Your task to perform on an android device: Check the news Image 0: 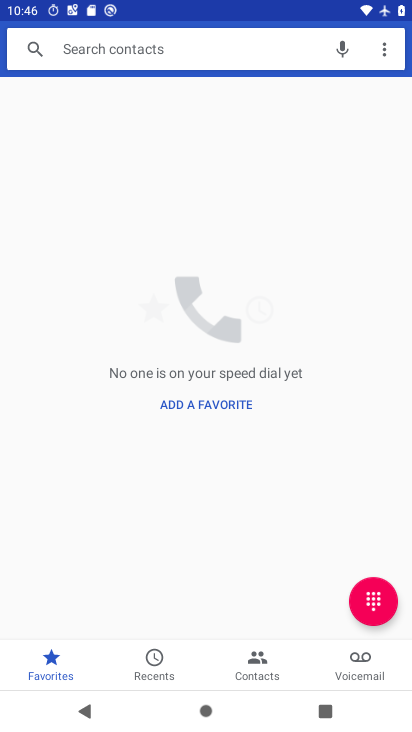
Step 0: press home button
Your task to perform on an android device: Check the news Image 1: 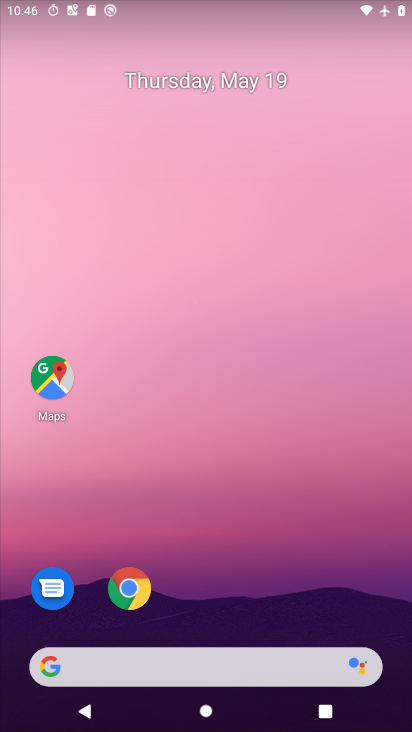
Step 1: click (56, 669)
Your task to perform on an android device: Check the news Image 2: 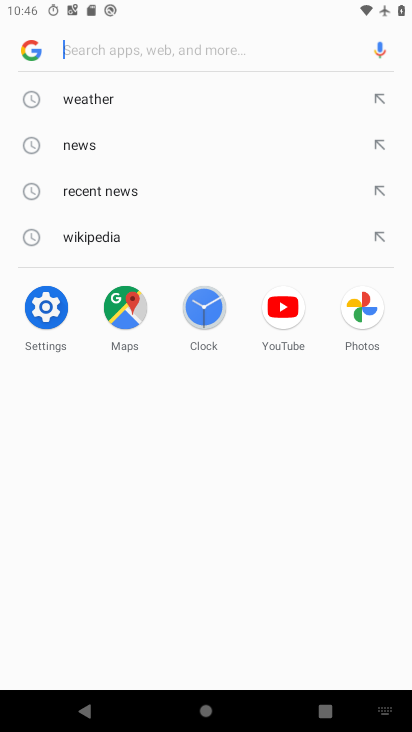
Step 2: click (96, 147)
Your task to perform on an android device: Check the news Image 3: 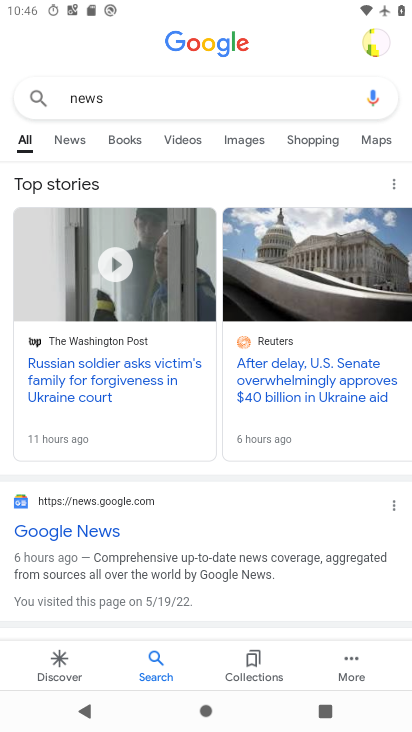
Step 3: click (82, 146)
Your task to perform on an android device: Check the news Image 4: 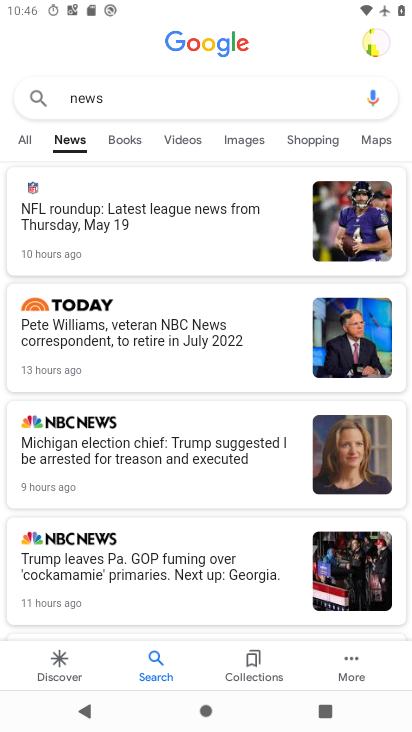
Step 4: task complete